Your task to perform on an android device: Open ESPN.com Image 0: 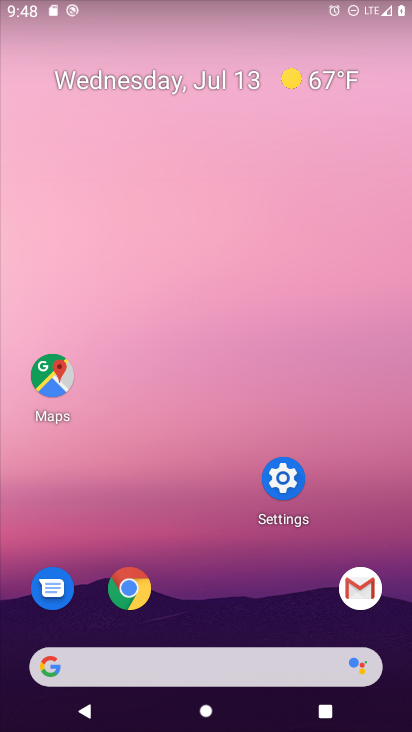
Step 0: press home button
Your task to perform on an android device: Open ESPN.com Image 1: 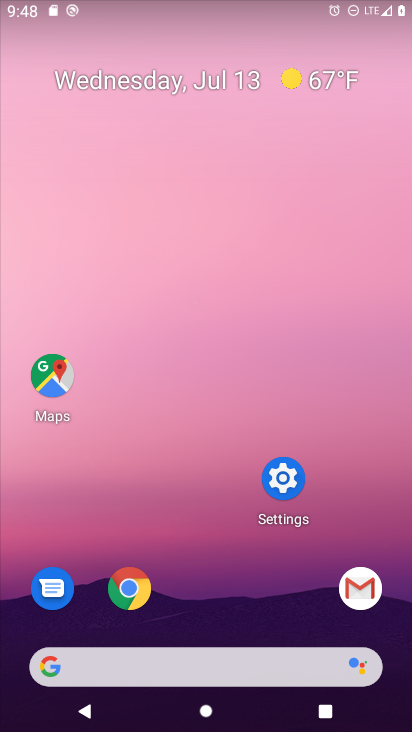
Step 1: click (142, 578)
Your task to perform on an android device: Open ESPN.com Image 2: 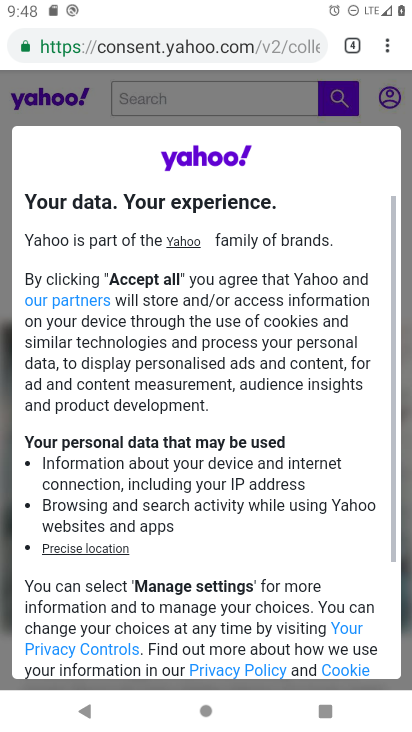
Step 2: drag from (162, 586) to (146, 418)
Your task to perform on an android device: Open ESPN.com Image 3: 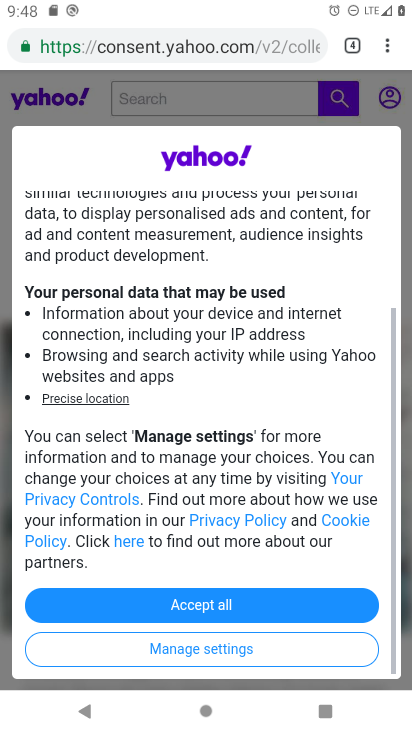
Step 3: click (356, 54)
Your task to perform on an android device: Open ESPN.com Image 4: 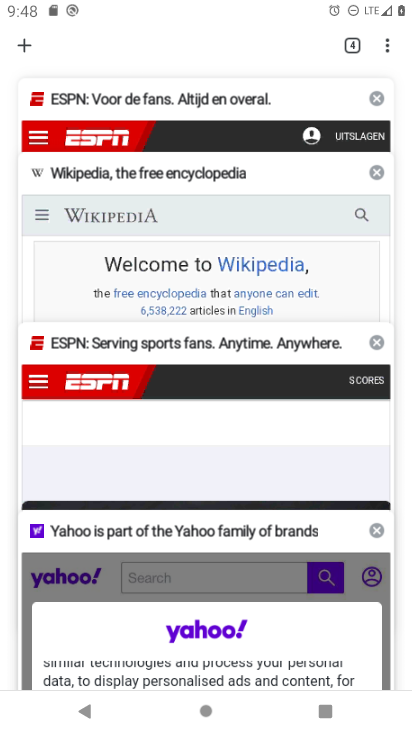
Step 4: click (24, 40)
Your task to perform on an android device: Open ESPN.com Image 5: 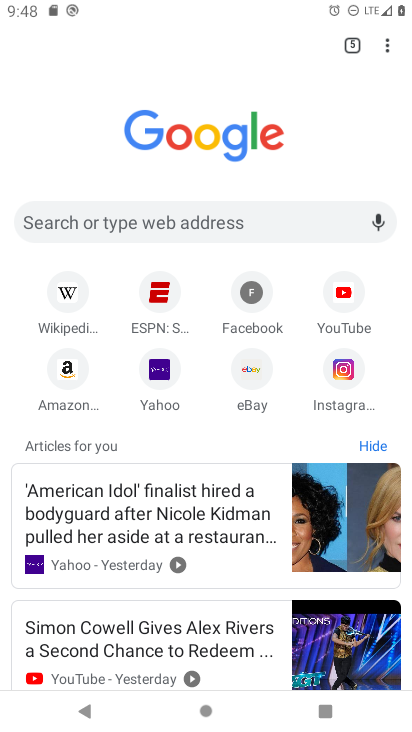
Step 5: click (168, 302)
Your task to perform on an android device: Open ESPN.com Image 6: 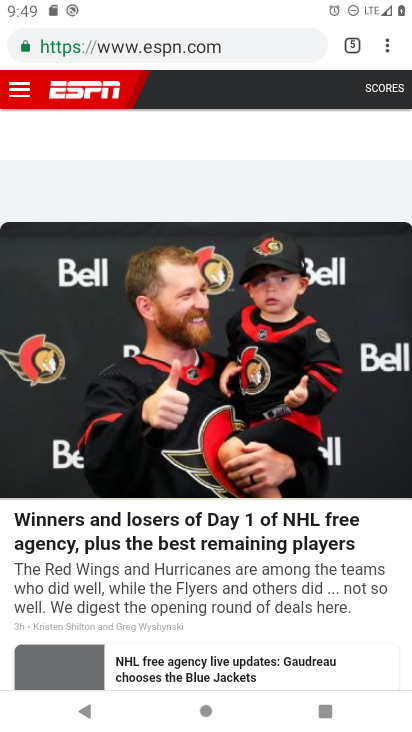
Step 6: task complete